Your task to perform on an android device: Open maps Image 0: 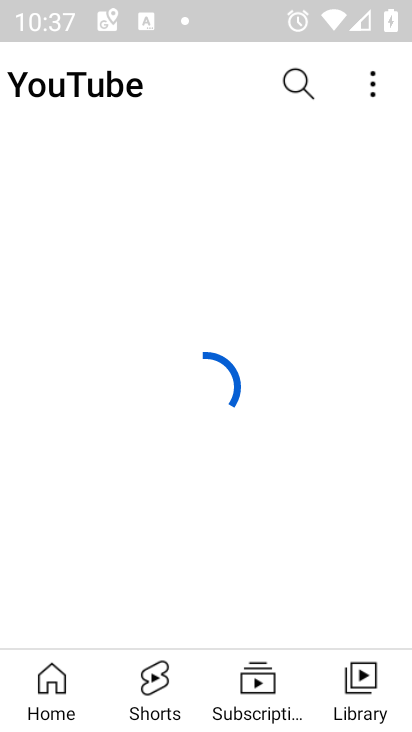
Step 0: press home button
Your task to perform on an android device: Open maps Image 1: 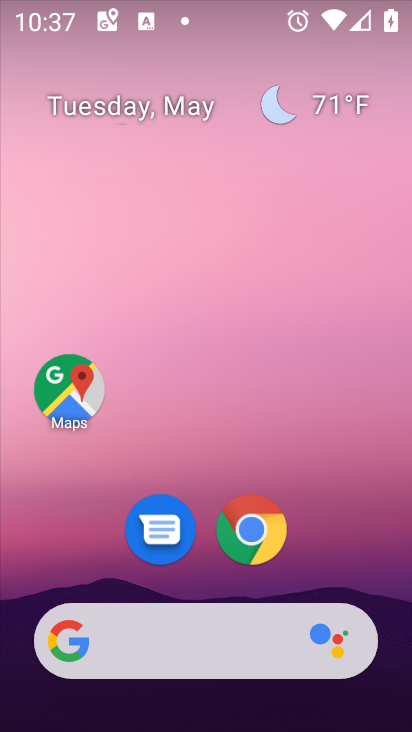
Step 1: drag from (326, 628) to (279, 333)
Your task to perform on an android device: Open maps Image 2: 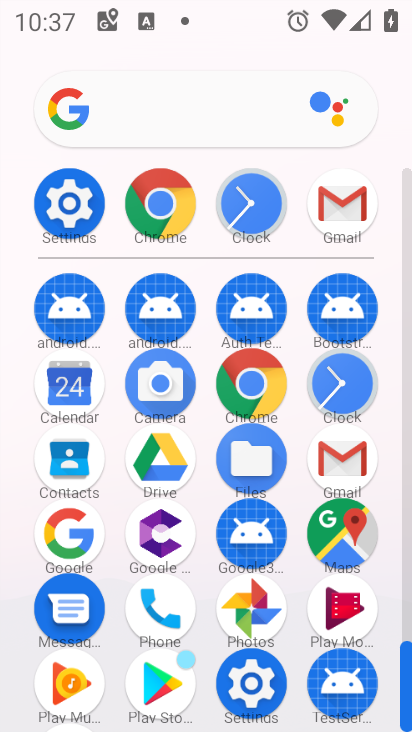
Step 2: drag from (275, 407) to (274, 360)
Your task to perform on an android device: Open maps Image 3: 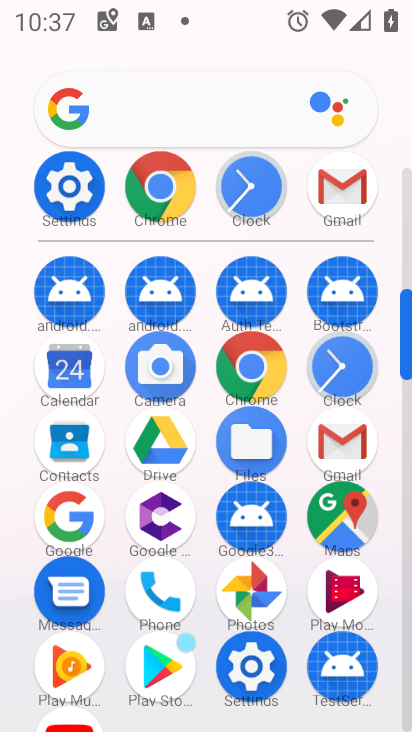
Step 3: click (333, 516)
Your task to perform on an android device: Open maps Image 4: 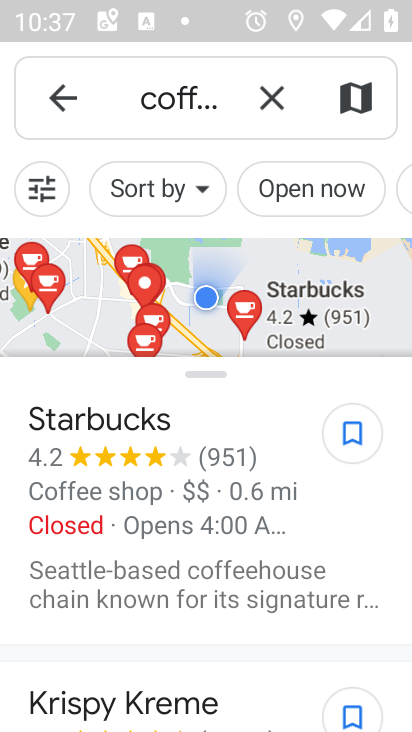
Step 4: task complete